Your task to perform on an android device: find photos in the google photos app Image 0: 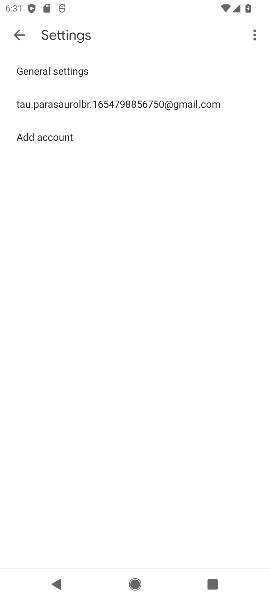
Step 0: press home button
Your task to perform on an android device: find photos in the google photos app Image 1: 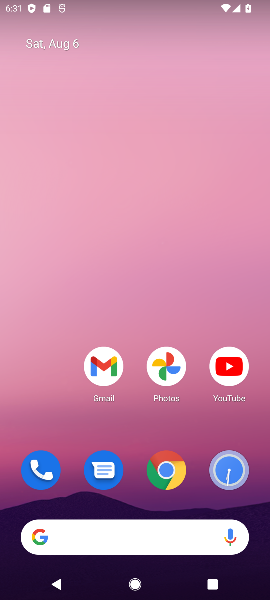
Step 1: drag from (159, 473) to (149, 134)
Your task to perform on an android device: find photos in the google photos app Image 2: 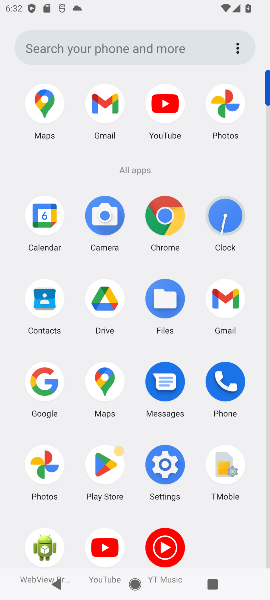
Step 2: click (216, 108)
Your task to perform on an android device: find photos in the google photos app Image 3: 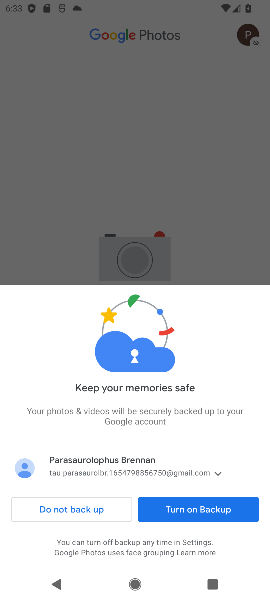
Step 3: task complete